Your task to perform on an android device: Go to Android settings Image 0: 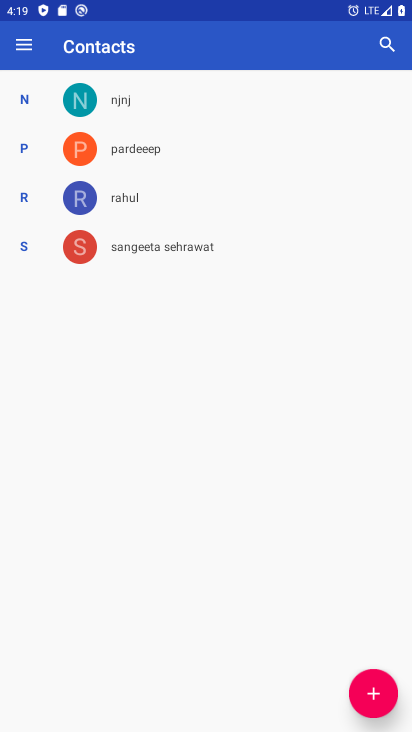
Step 0: press back button
Your task to perform on an android device: Go to Android settings Image 1: 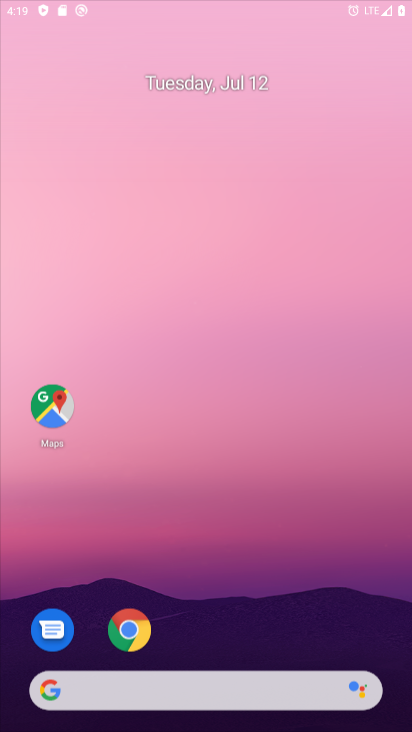
Step 1: press home button
Your task to perform on an android device: Go to Android settings Image 2: 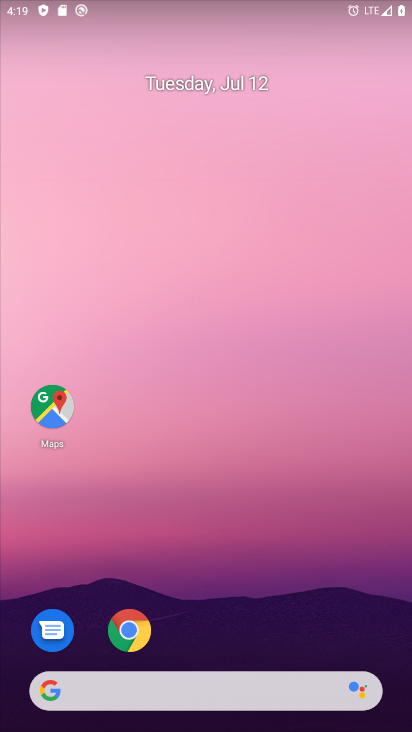
Step 2: drag from (266, 679) to (188, 146)
Your task to perform on an android device: Go to Android settings Image 3: 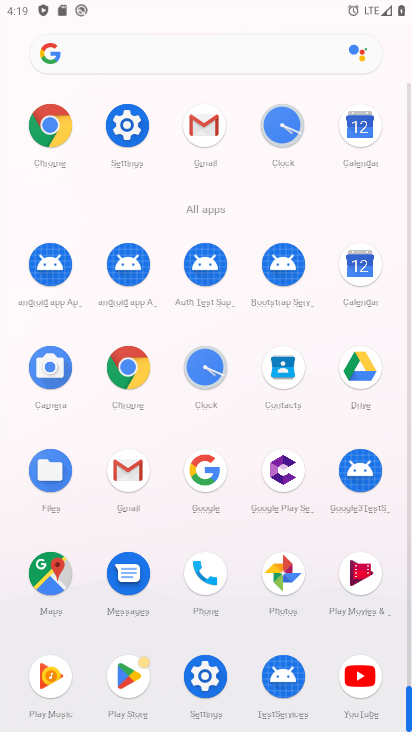
Step 3: click (203, 681)
Your task to perform on an android device: Go to Android settings Image 4: 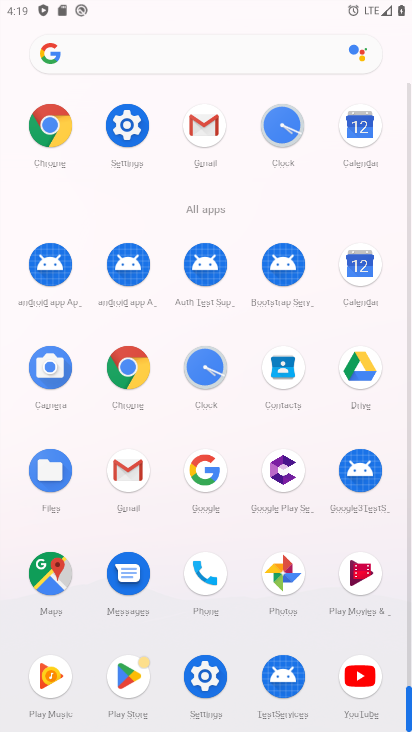
Step 4: click (205, 680)
Your task to perform on an android device: Go to Android settings Image 5: 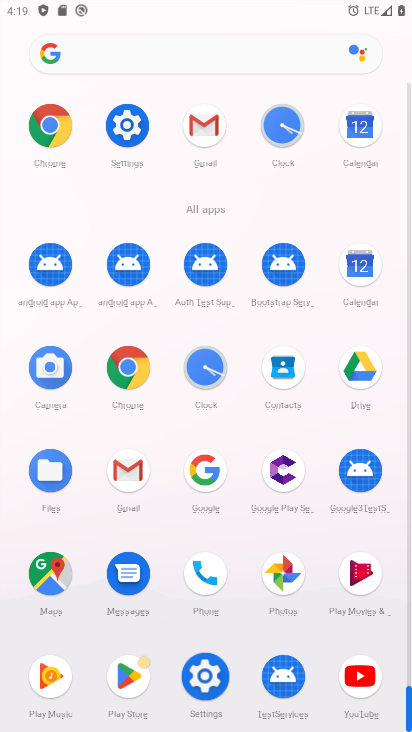
Step 5: click (208, 680)
Your task to perform on an android device: Go to Android settings Image 6: 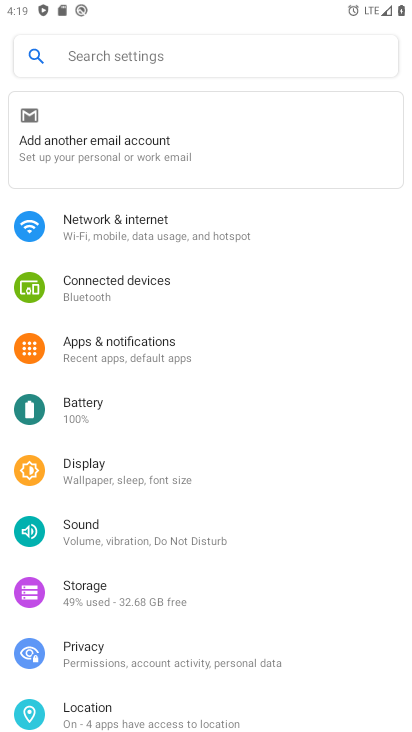
Step 6: click (211, 680)
Your task to perform on an android device: Go to Android settings Image 7: 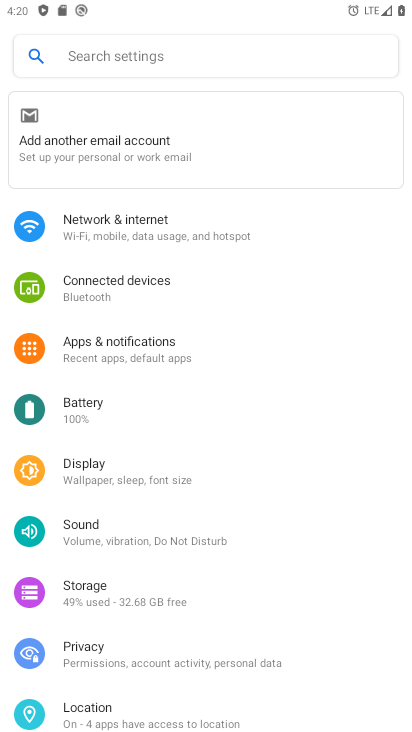
Step 7: drag from (128, 585) to (67, 120)
Your task to perform on an android device: Go to Android settings Image 8: 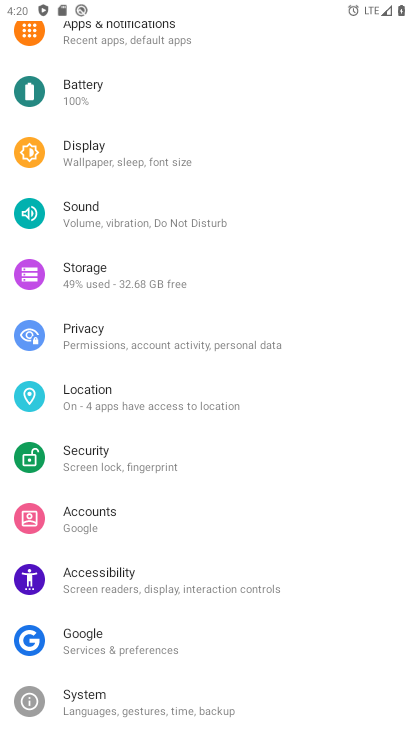
Step 8: drag from (147, 446) to (154, 165)
Your task to perform on an android device: Go to Android settings Image 9: 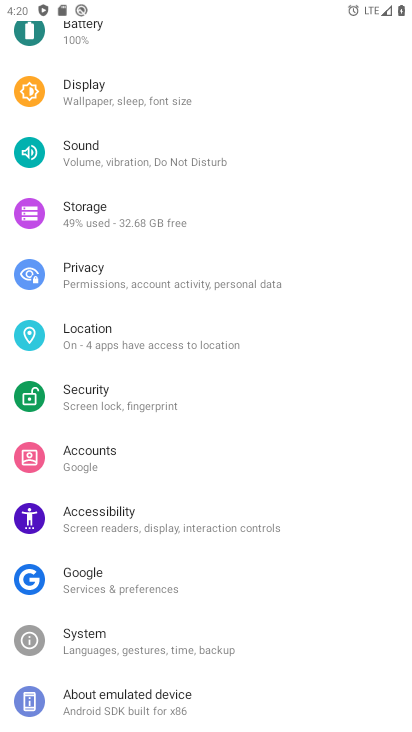
Step 9: click (94, 684)
Your task to perform on an android device: Go to Android settings Image 10: 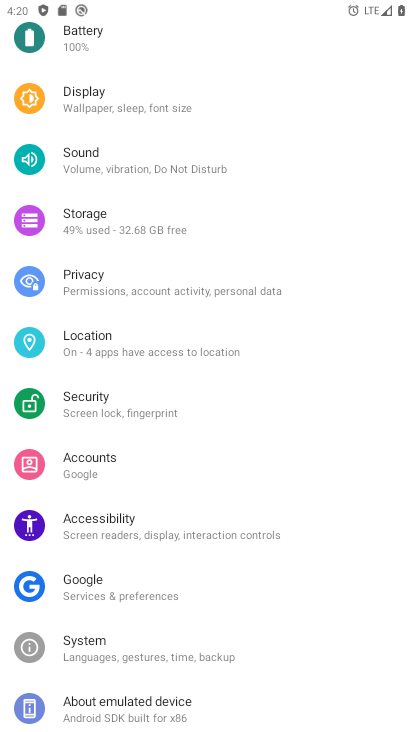
Step 10: click (96, 703)
Your task to perform on an android device: Go to Android settings Image 11: 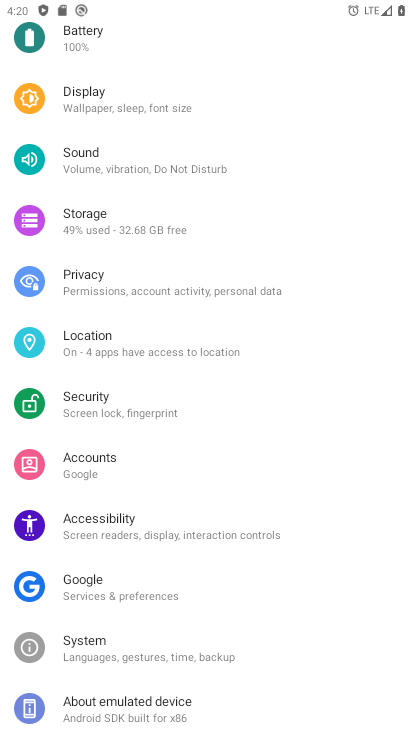
Step 11: click (96, 703)
Your task to perform on an android device: Go to Android settings Image 12: 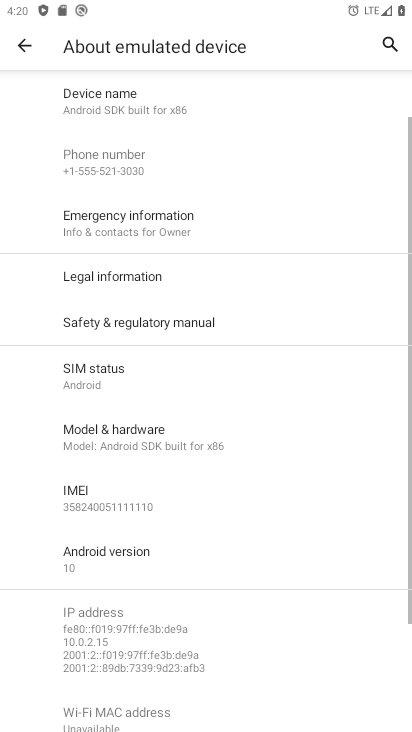
Step 12: task complete